Your task to perform on an android device: install app "Spotify: Music and Podcasts" Image 0: 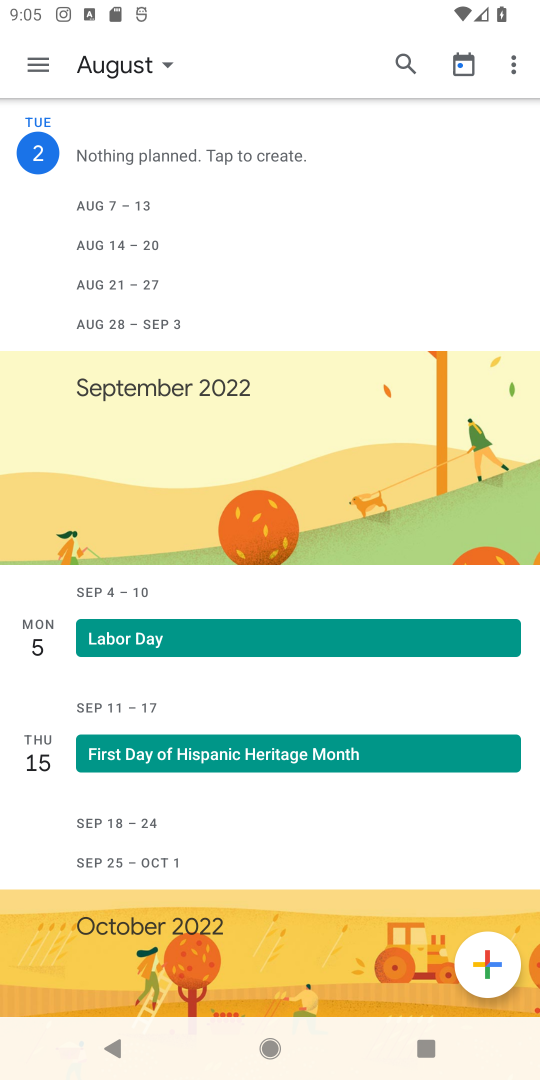
Step 0: press home button
Your task to perform on an android device: install app "Spotify: Music and Podcasts" Image 1: 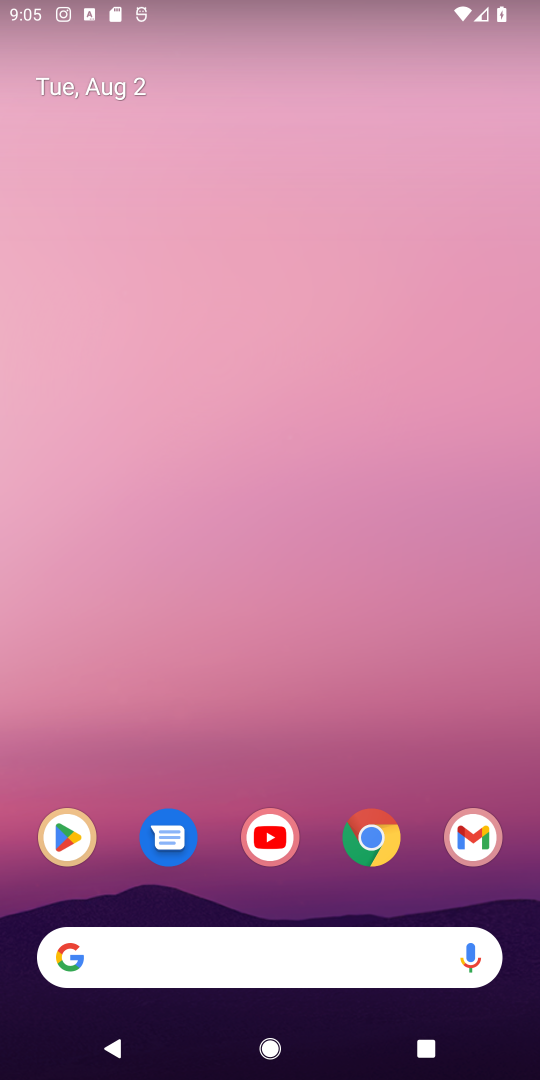
Step 1: click (64, 846)
Your task to perform on an android device: install app "Spotify: Music and Podcasts" Image 2: 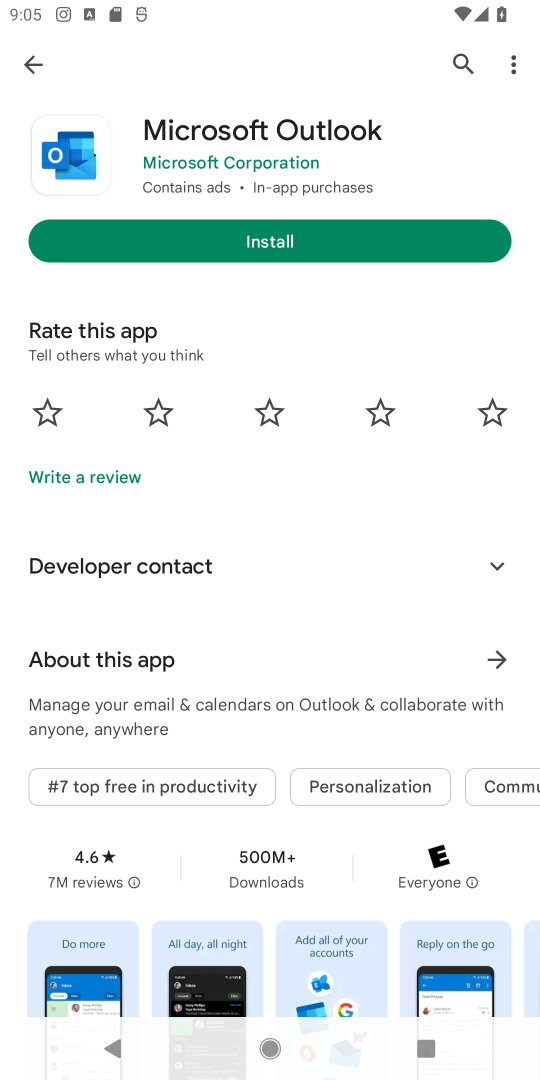
Step 2: click (456, 57)
Your task to perform on an android device: install app "Spotify: Music and Podcasts" Image 3: 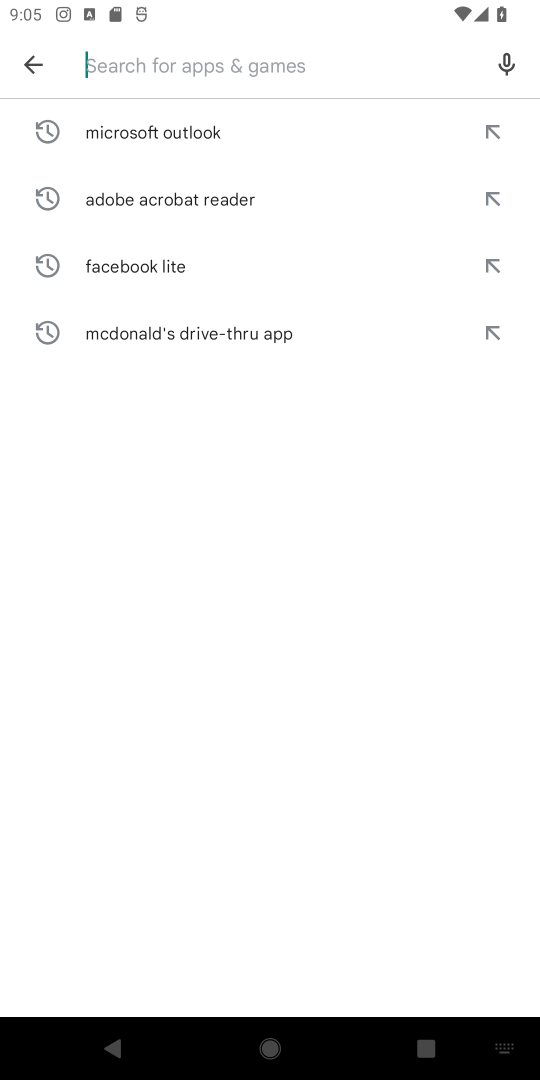
Step 3: type "Spotify: Music and Podcasts"
Your task to perform on an android device: install app "Spotify: Music and Podcasts" Image 4: 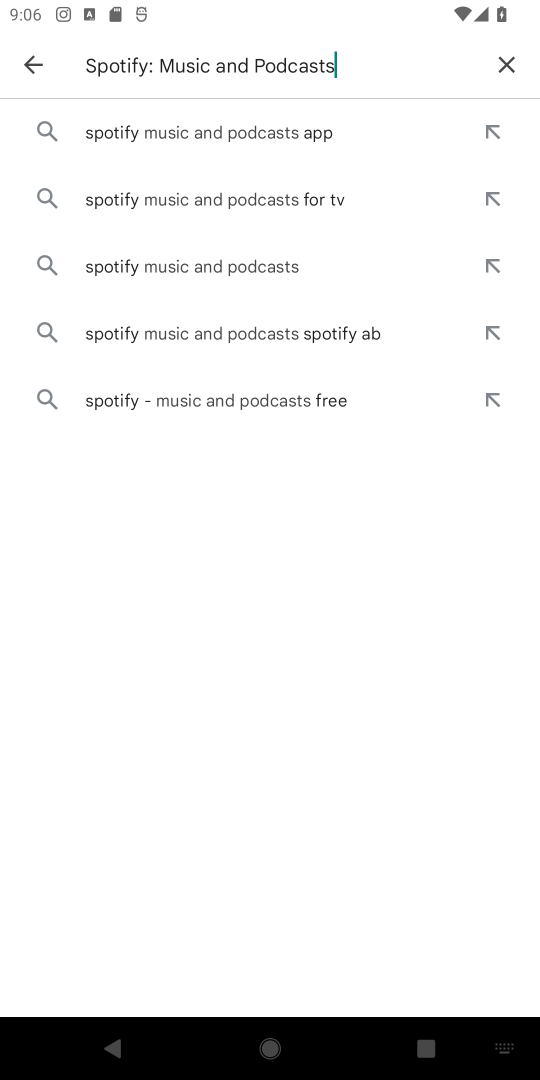
Step 4: click (237, 139)
Your task to perform on an android device: install app "Spotify: Music and Podcasts" Image 5: 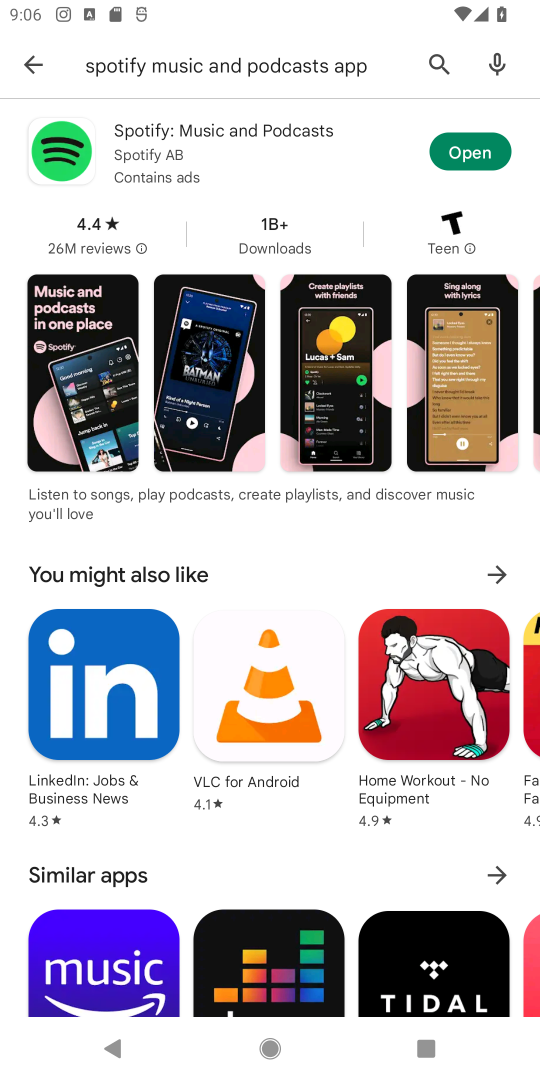
Step 5: task complete